Your task to perform on an android device: Open the calendar and show me this week's events? Image 0: 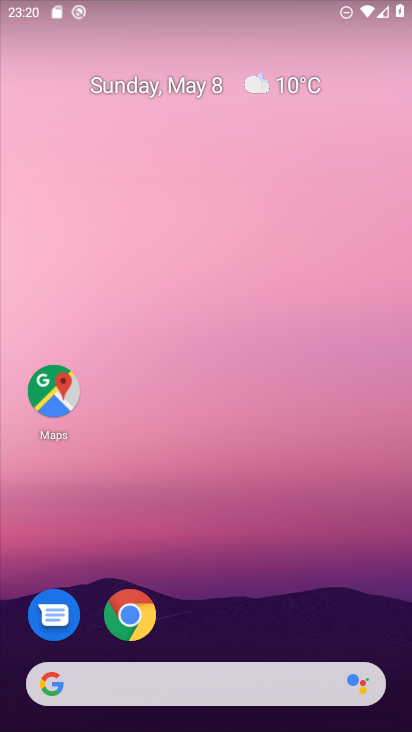
Step 0: drag from (290, 494) to (260, 157)
Your task to perform on an android device: Open the calendar and show me this week's events? Image 1: 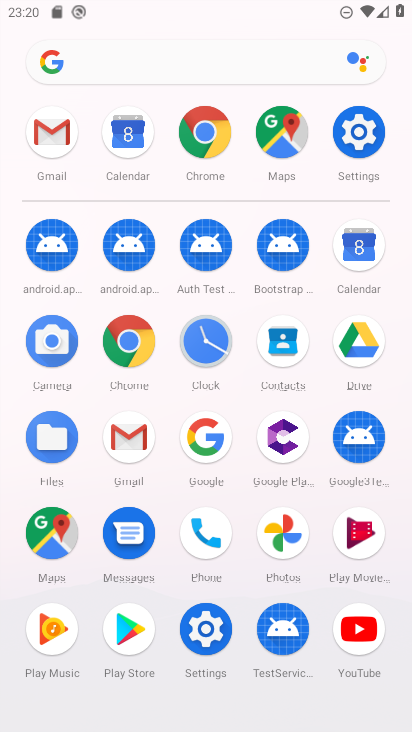
Step 1: click (366, 254)
Your task to perform on an android device: Open the calendar and show me this week's events? Image 2: 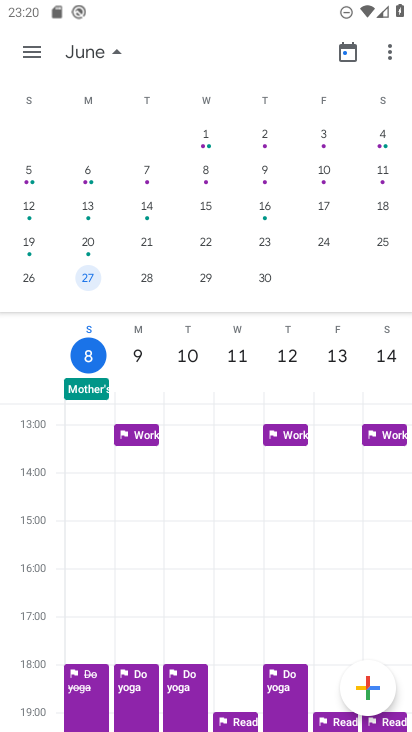
Step 2: task complete